Your task to perform on an android device: Go to settings Image 0: 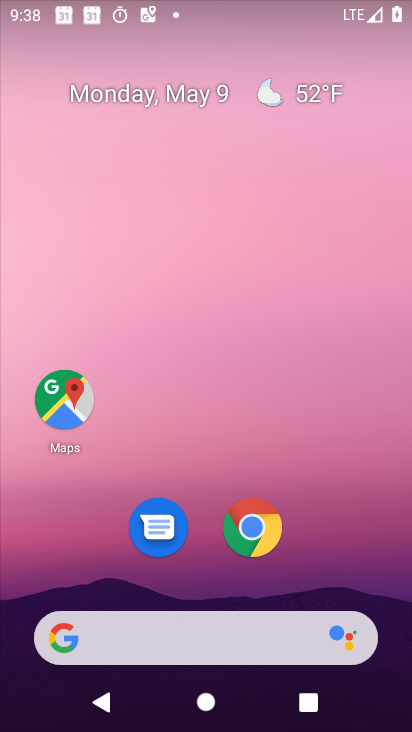
Step 0: drag from (333, 568) to (332, 170)
Your task to perform on an android device: Go to settings Image 1: 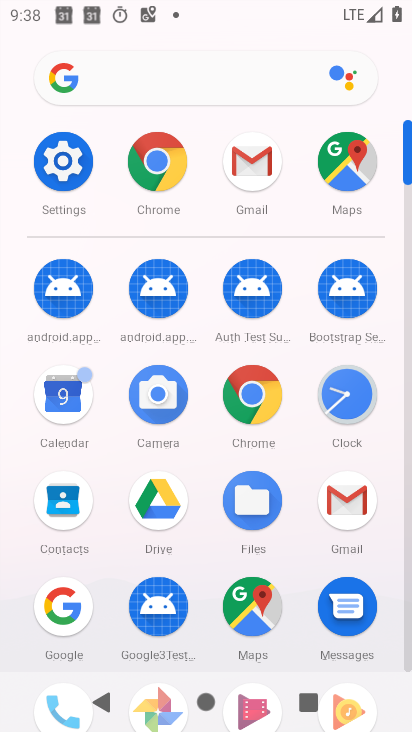
Step 1: click (70, 158)
Your task to perform on an android device: Go to settings Image 2: 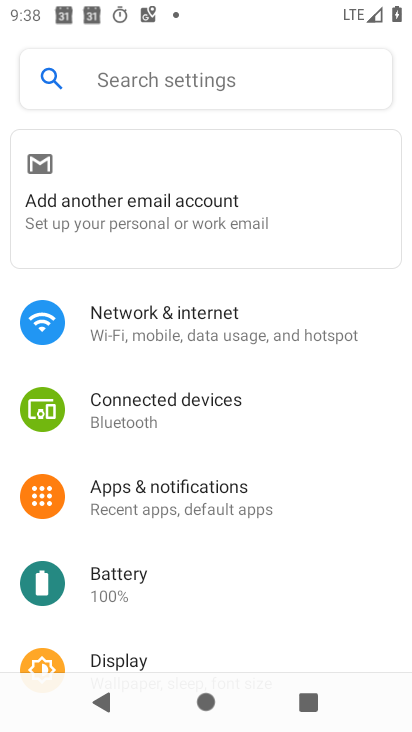
Step 2: task complete